Your task to perform on an android device: turn pop-ups off in chrome Image 0: 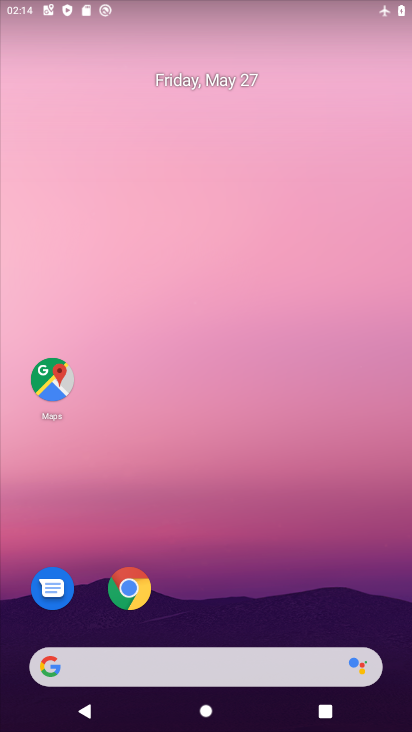
Step 0: click (127, 590)
Your task to perform on an android device: turn pop-ups off in chrome Image 1: 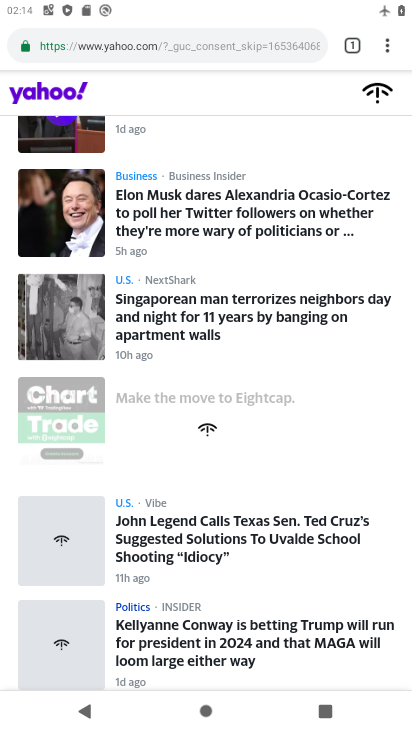
Step 1: click (388, 49)
Your task to perform on an android device: turn pop-ups off in chrome Image 2: 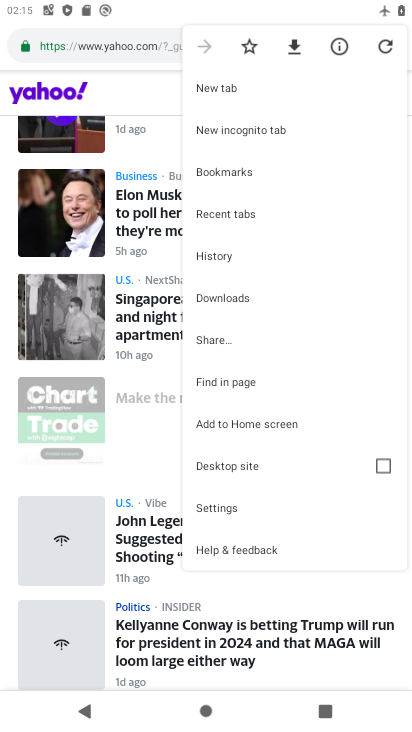
Step 2: click (215, 507)
Your task to perform on an android device: turn pop-ups off in chrome Image 3: 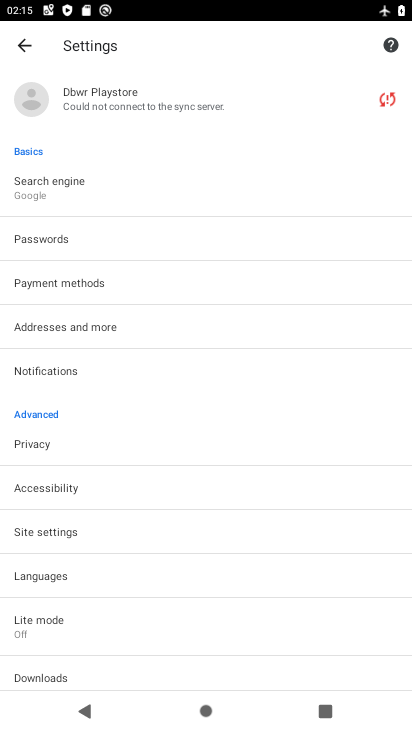
Step 3: click (64, 529)
Your task to perform on an android device: turn pop-ups off in chrome Image 4: 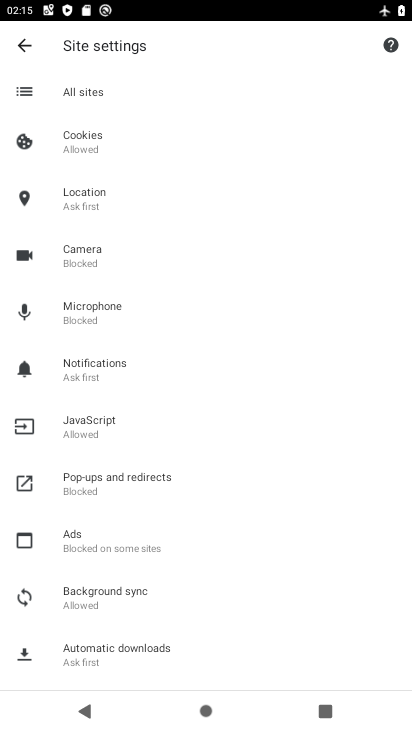
Step 4: click (104, 470)
Your task to perform on an android device: turn pop-ups off in chrome Image 5: 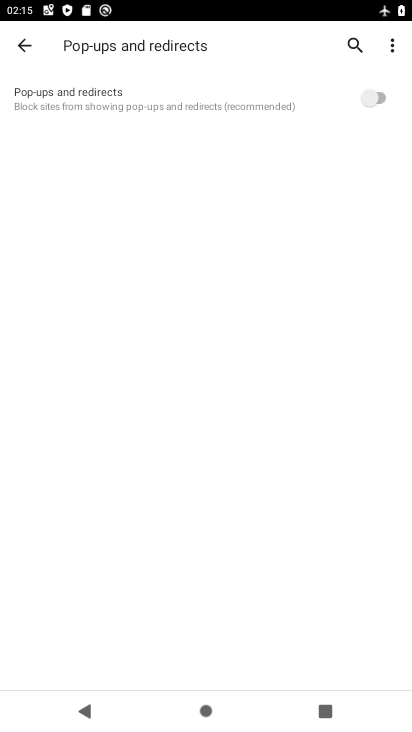
Step 5: task complete